Your task to perform on an android device: set the timer Image 0: 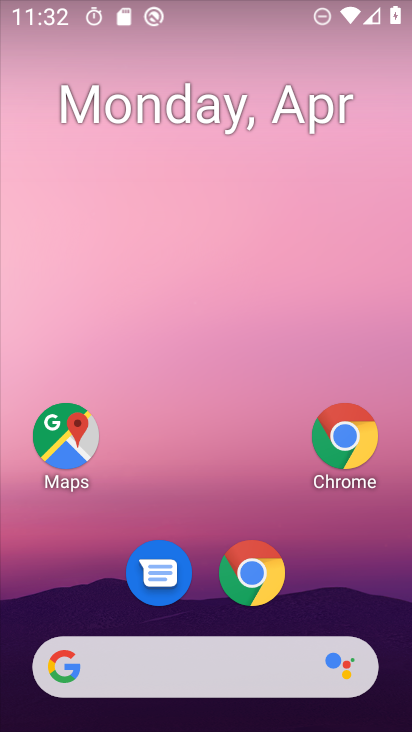
Step 0: drag from (343, 426) to (293, 79)
Your task to perform on an android device: set the timer Image 1: 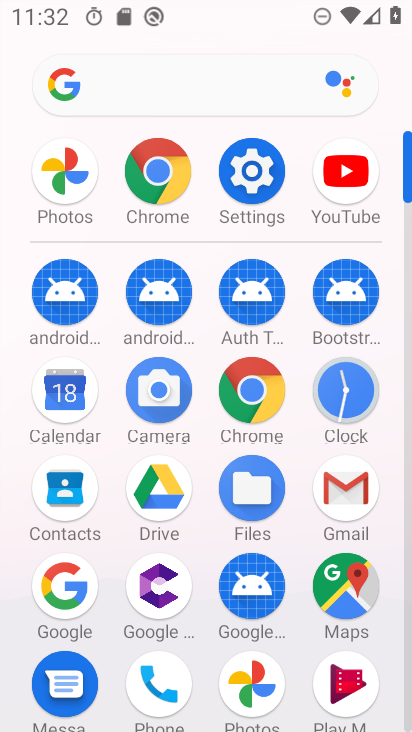
Step 1: click (363, 390)
Your task to perform on an android device: set the timer Image 2: 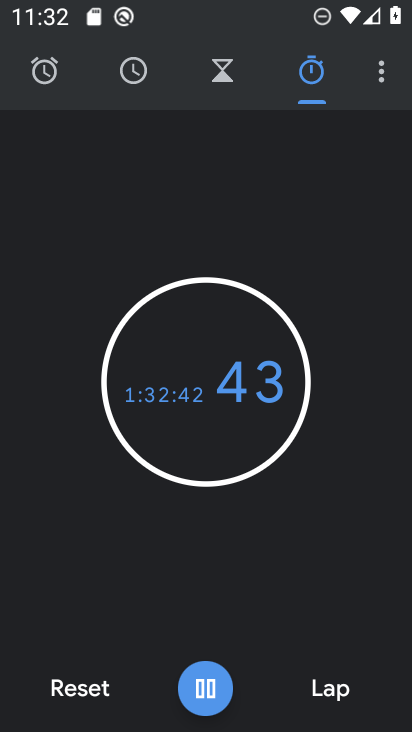
Step 2: click (199, 74)
Your task to perform on an android device: set the timer Image 3: 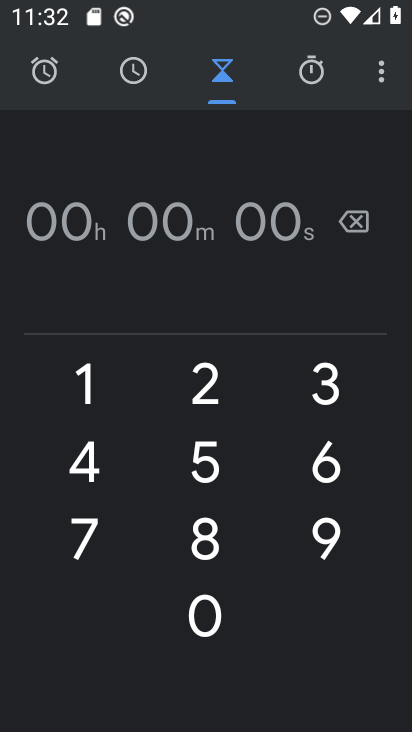
Step 3: click (219, 379)
Your task to perform on an android device: set the timer Image 4: 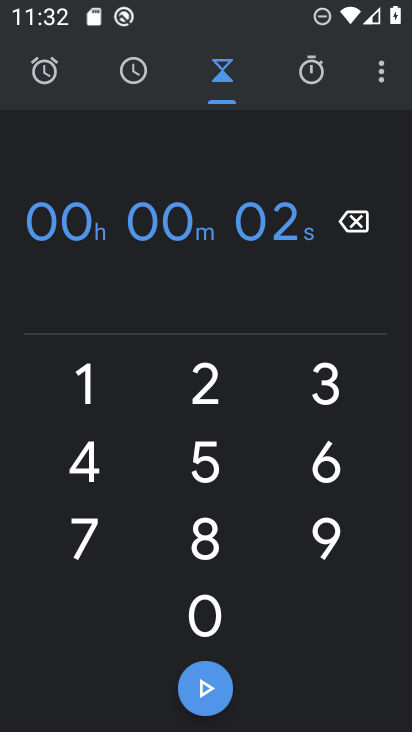
Step 4: click (224, 616)
Your task to perform on an android device: set the timer Image 5: 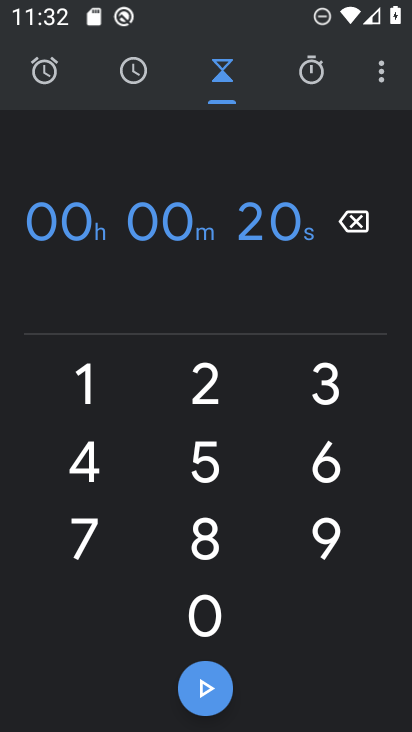
Step 5: click (226, 701)
Your task to perform on an android device: set the timer Image 6: 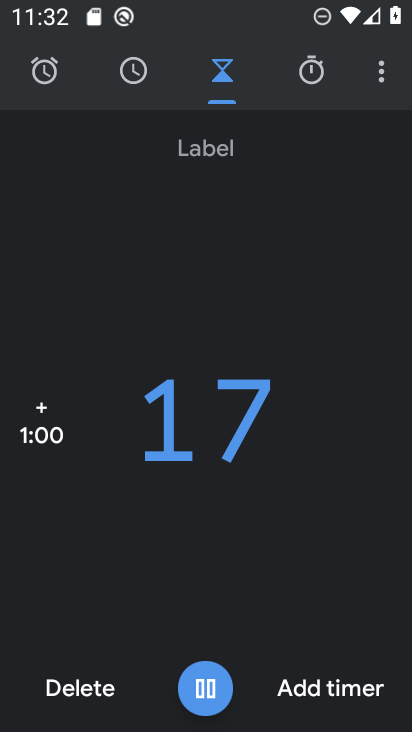
Step 6: task complete